Your task to perform on an android device: turn on notifications settings in the gmail app Image 0: 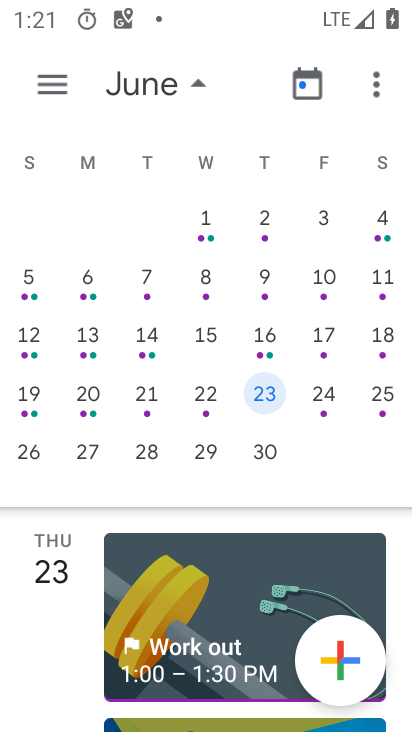
Step 0: press home button
Your task to perform on an android device: turn on notifications settings in the gmail app Image 1: 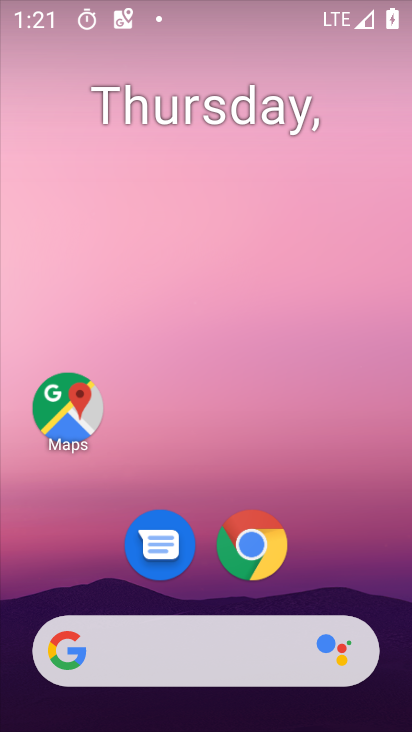
Step 1: drag from (254, 684) to (338, 44)
Your task to perform on an android device: turn on notifications settings in the gmail app Image 2: 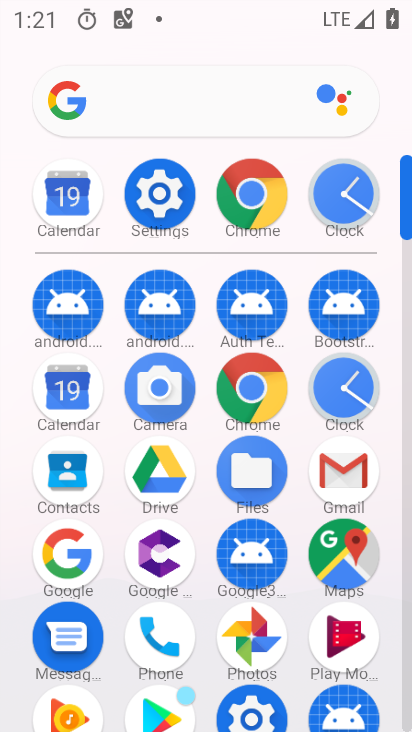
Step 2: click (366, 465)
Your task to perform on an android device: turn on notifications settings in the gmail app Image 3: 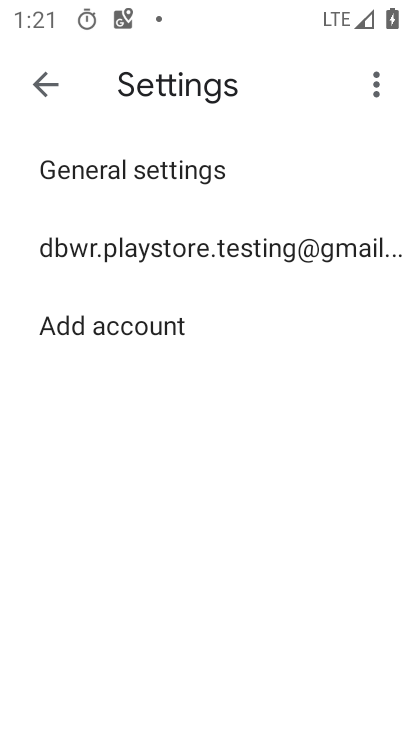
Step 3: click (353, 236)
Your task to perform on an android device: turn on notifications settings in the gmail app Image 4: 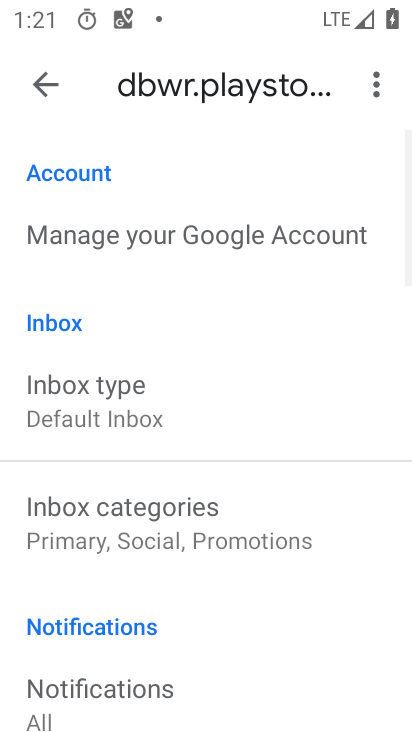
Step 4: drag from (302, 656) to (314, 86)
Your task to perform on an android device: turn on notifications settings in the gmail app Image 5: 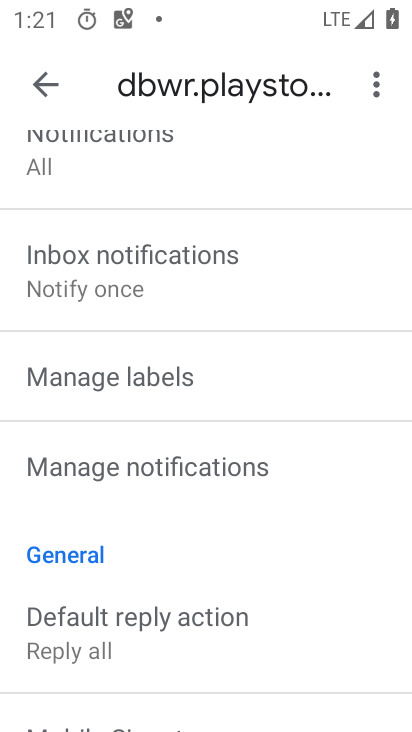
Step 5: click (213, 573)
Your task to perform on an android device: turn on notifications settings in the gmail app Image 6: 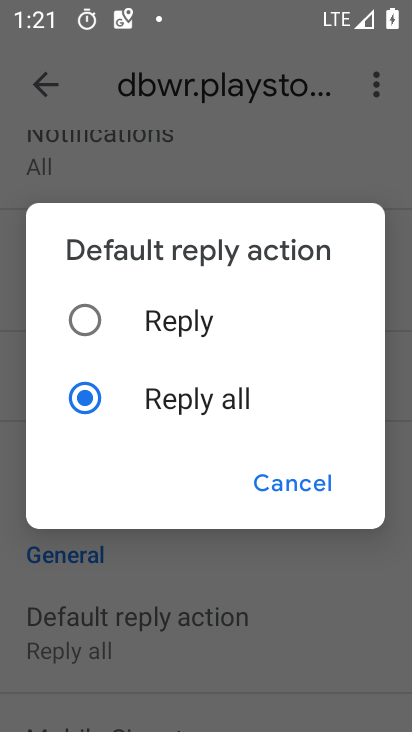
Step 6: press back button
Your task to perform on an android device: turn on notifications settings in the gmail app Image 7: 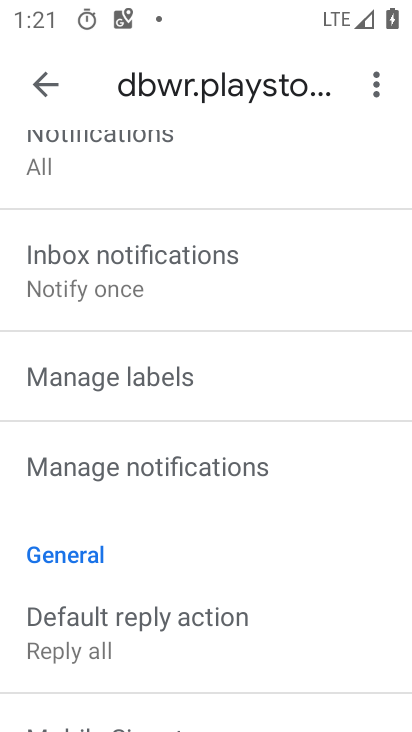
Step 7: click (201, 467)
Your task to perform on an android device: turn on notifications settings in the gmail app Image 8: 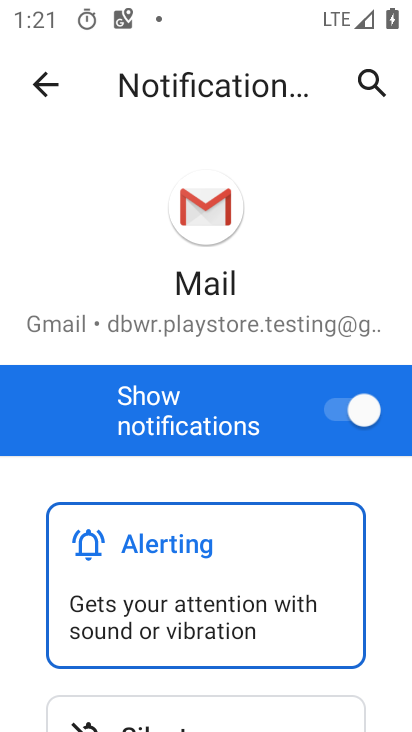
Step 8: task complete